Your task to perform on an android device: Open eBay Image 0: 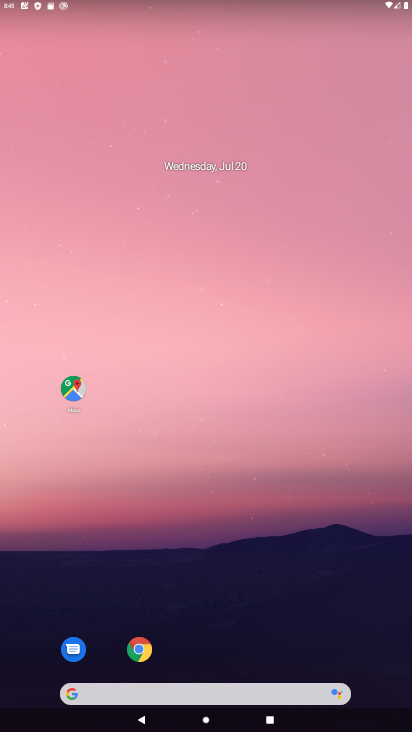
Step 0: drag from (271, 650) to (313, 29)
Your task to perform on an android device: Open eBay Image 1: 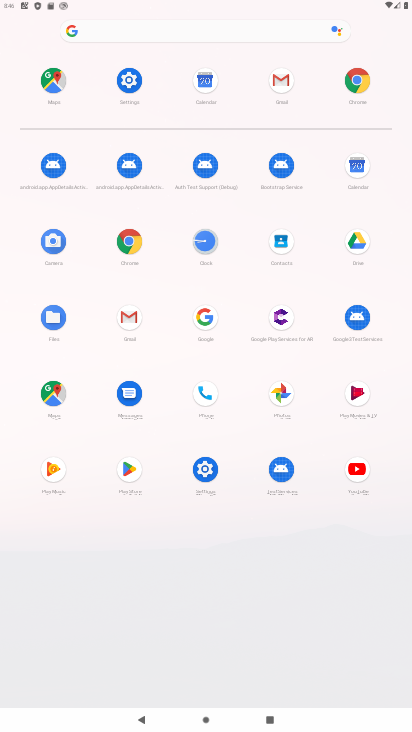
Step 1: click (180, 35)
Your task to perform on an android device: Open eBay Image 2: 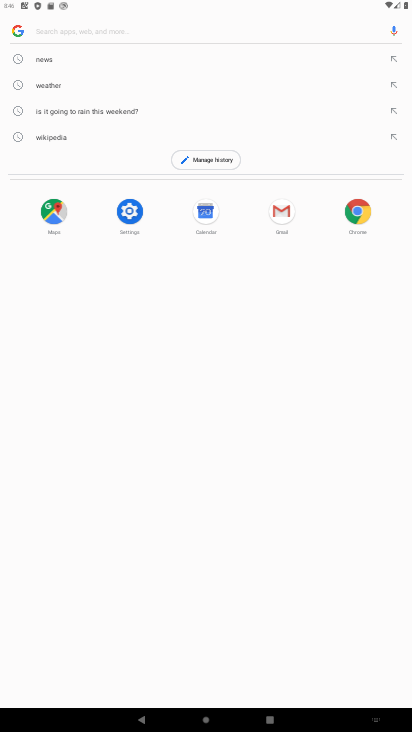
Step 2: type "ebay.com"
Your task to perform on an android device: Open eBay Image 3: 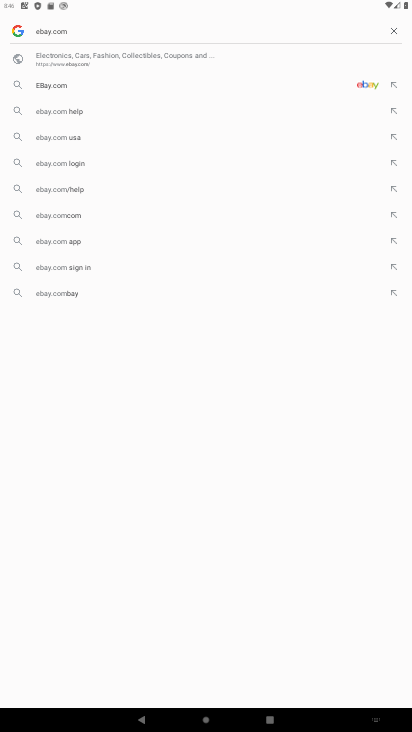
Step 3: click (74, 67)
Your task to perform on an android device: Open eBay Image 4: 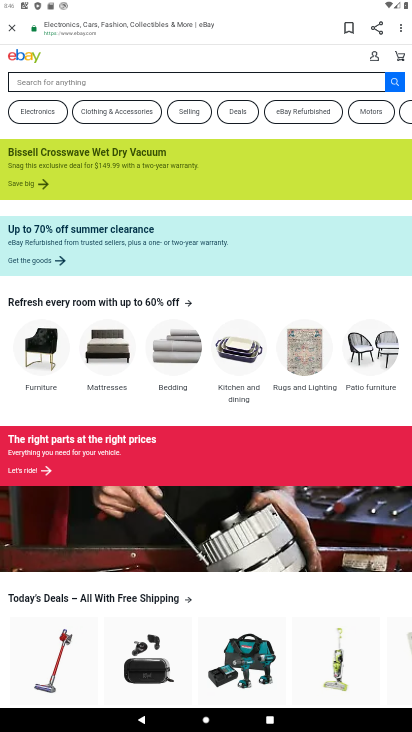
Step 4: task complete